Your task to perform on an android device: add a label to a message in the gmail app Image 0: 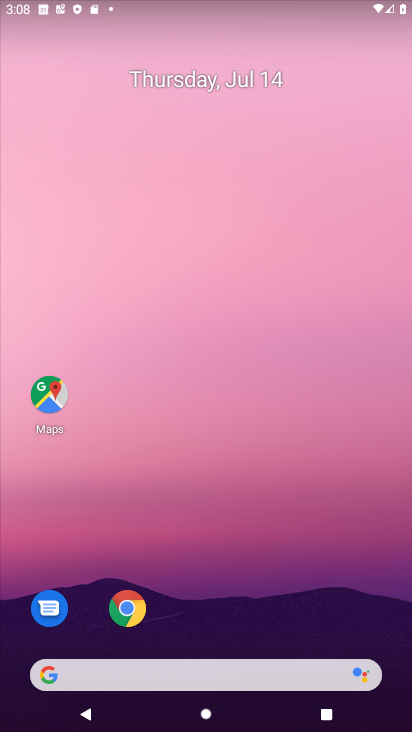
Step 0: drag from (236, 622) to (249, 132)
Your task to perform on an android device: add a label to a message in the gmail app Image 1: 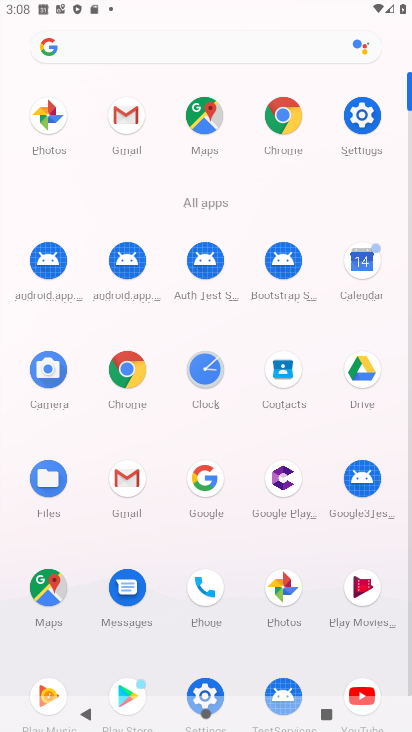
Step 1: click (118, 124)
Your task to perform on an android device: add a label to a message in the gmail app Image 2: 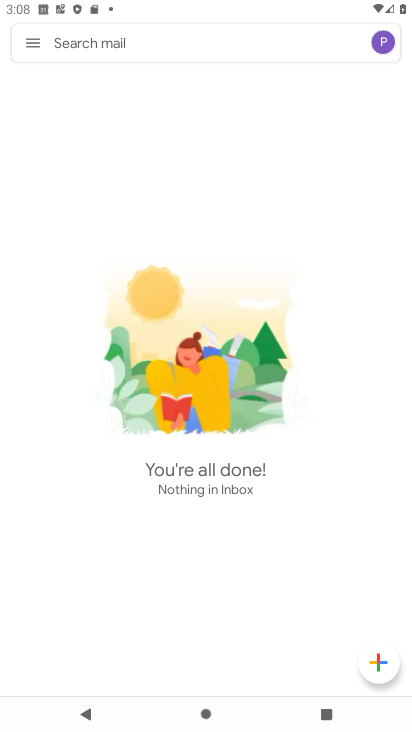
Step 2: click (33, 38)
Your task to perform on an android device: add a label to a message in the gmail app Image 3: 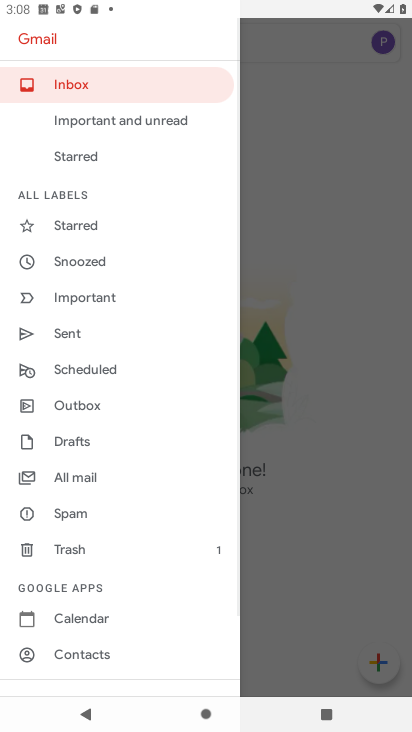
Step 3: click (115, 483)
Your task to perform on an android device: add a label to a message in the gmail app Image 4: 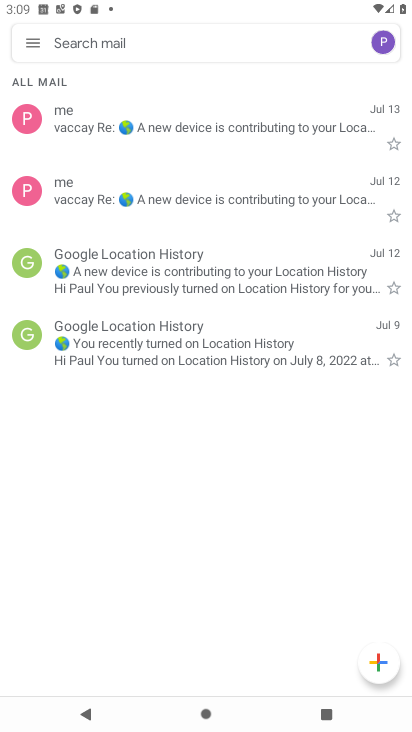
Step 4: click (259, 125)
Your task to perform on an android device: add a label to a message in the gmail app Image 5: 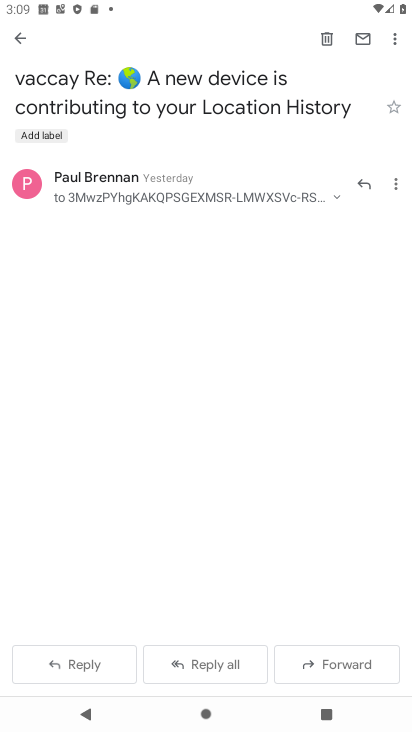
Step 5: click (55, 134)
Your task to perform on an android device: add a label to a message in the gmail app Image 6: 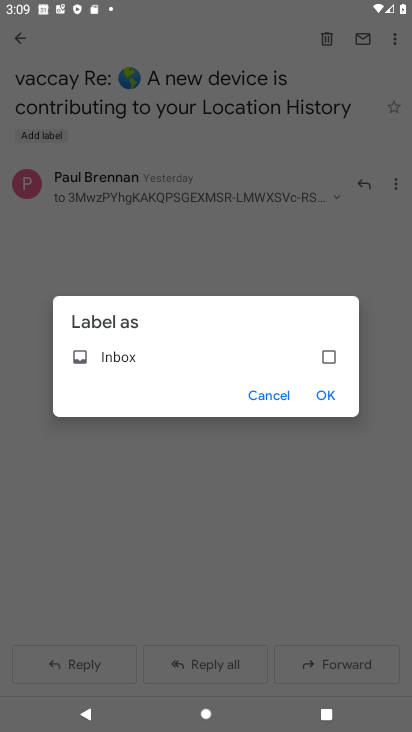
Step 6: click (222, 355)
Your task to perform on an android device: add a label to a message in the gmail app Image 7: 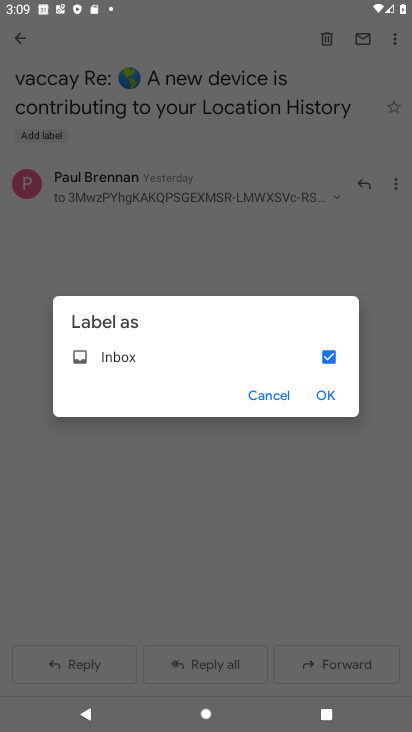
Step 7: click (327, 398)
Your task to perform on an android device: add a label to a message in the gmail app Image 8: 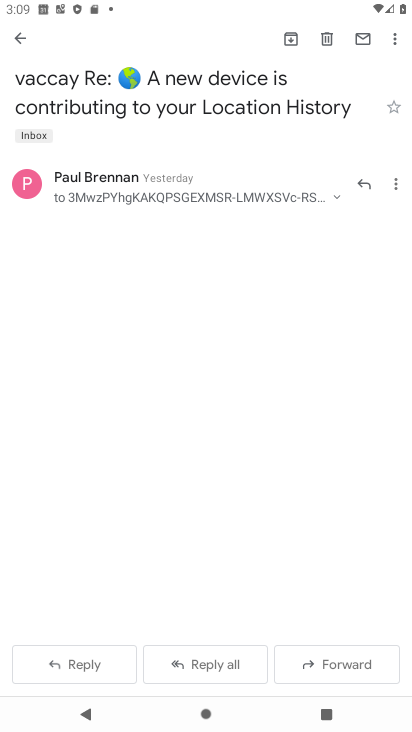
Step 8: task complete